Your task to perform on an android device: find which apps use the phone's location Image 0: 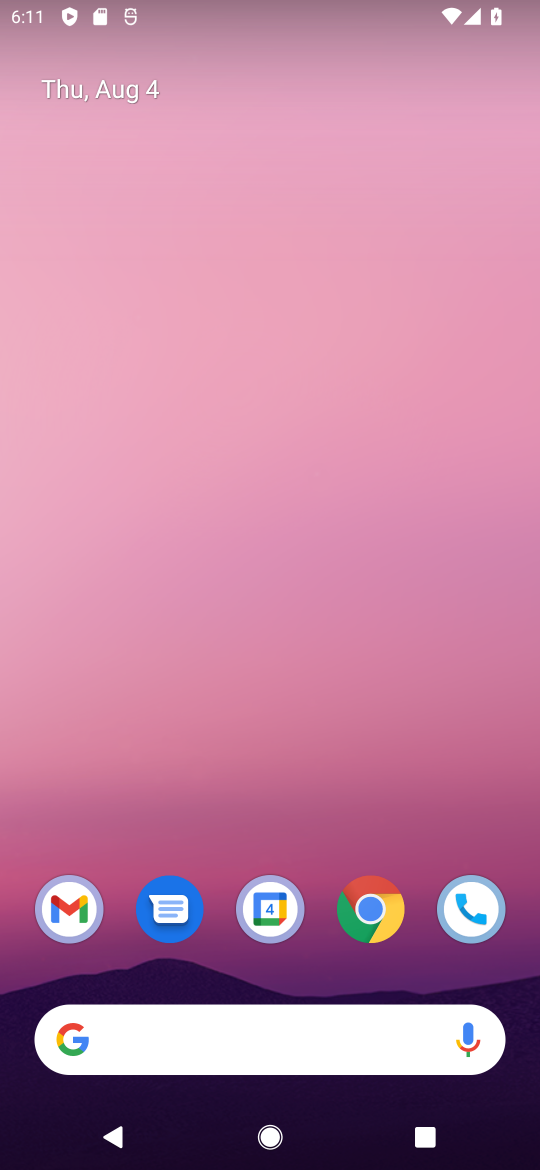
Step 0: drag from (225, 1069) to (312, 62)
Your task to perform on an android device: find which apps use the phone's location Image 1: 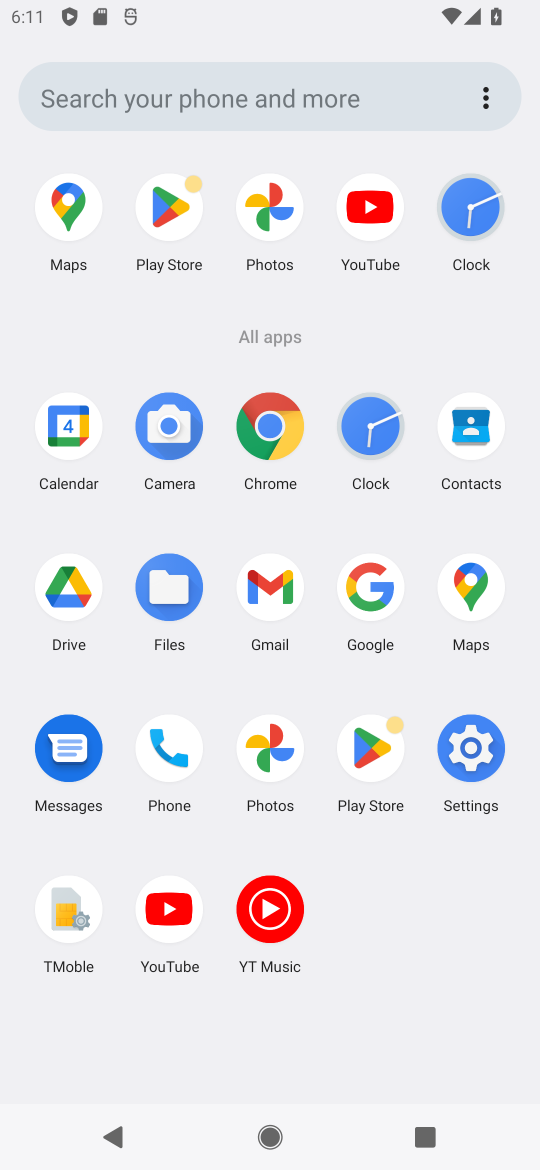
Step 1: click (499, 738)
Your task to perform on an android device: find which apps use the phone's location Image 2: 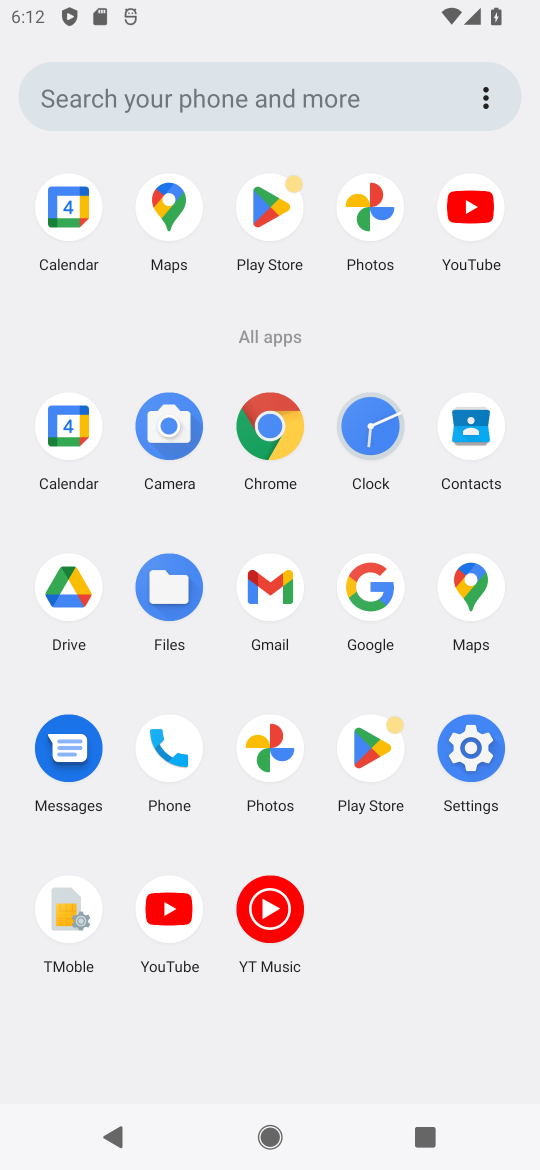
Step 2: click (475, 753)
Your task to perform on an android device: find which apps use the phone's location Image 3: 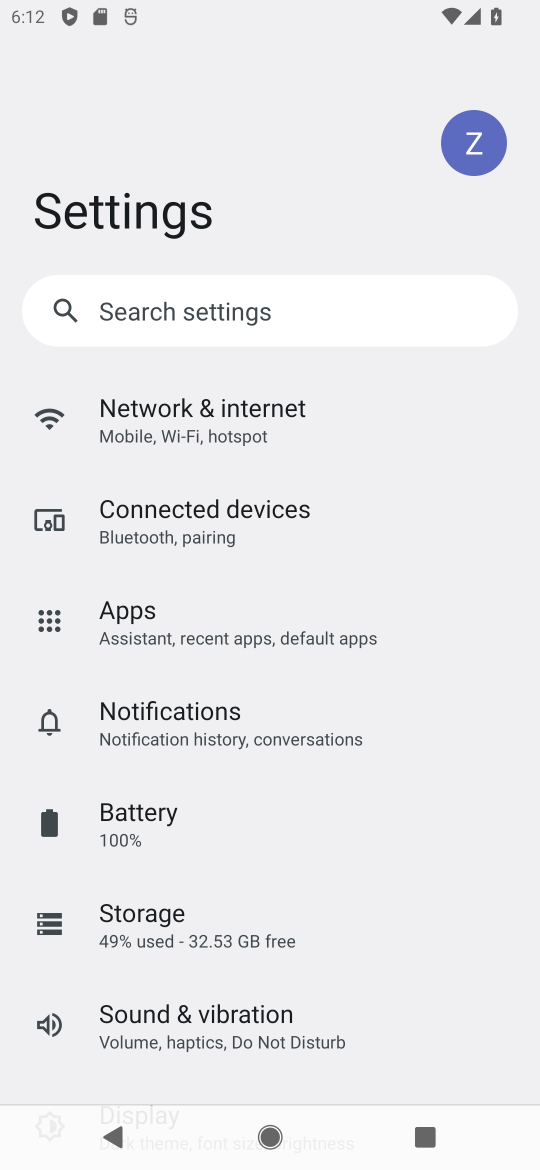
Step 3: drag from (213, 910) to (287, 364)
Your task to perform on an android device: find which apps use the phone's location Image 4: 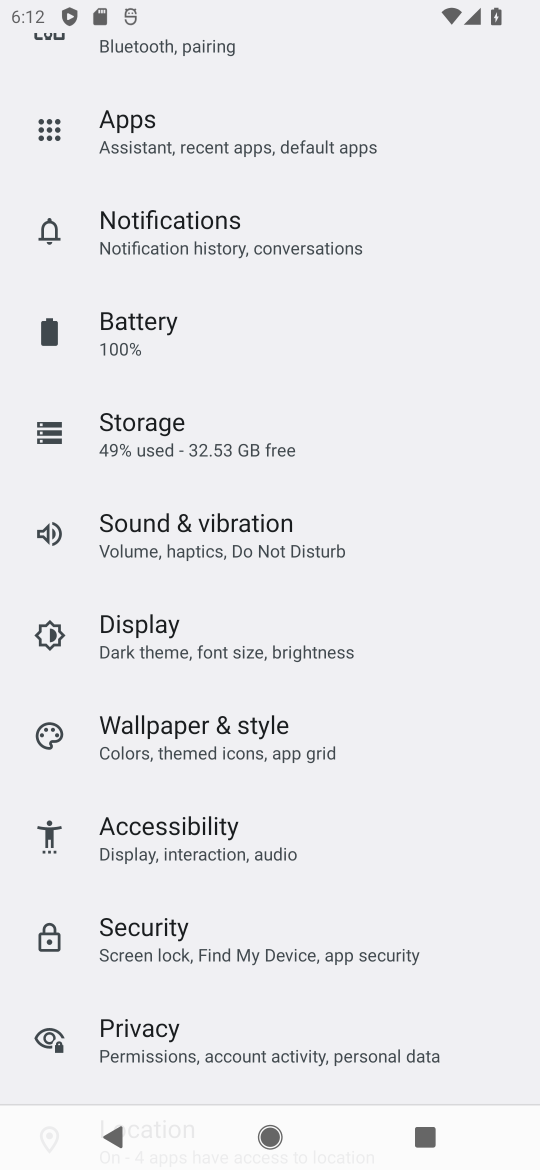
Step 4: drag from (171, 963) to (195, 403)
Your task to perform on an android device: find which apps use the phone's location Image 5: 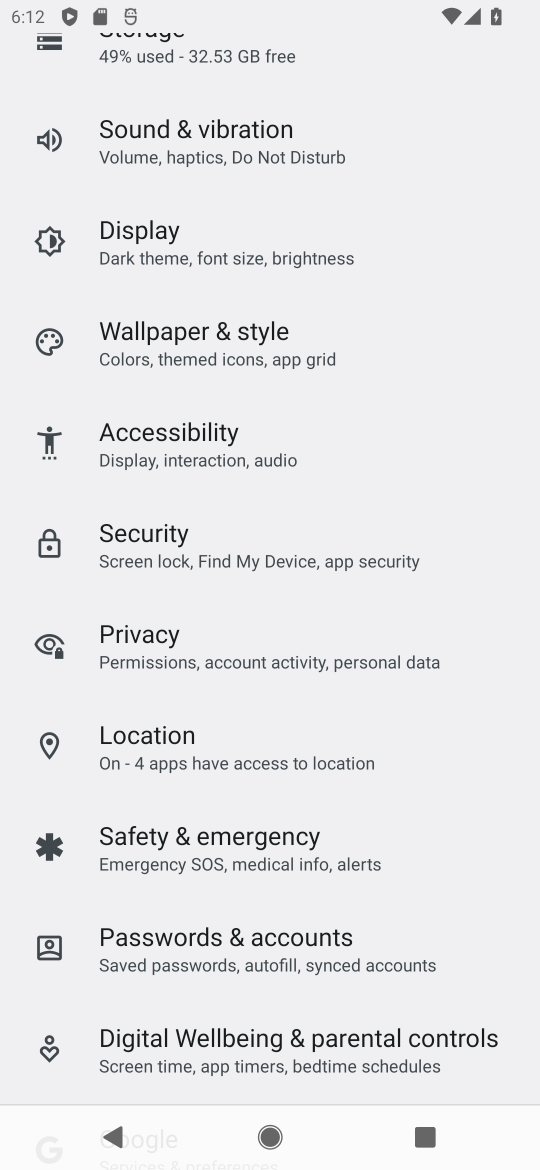
Step 5: click (166, 765)
Your task to perform on an android device: find which apps use the phone's location Image 6: 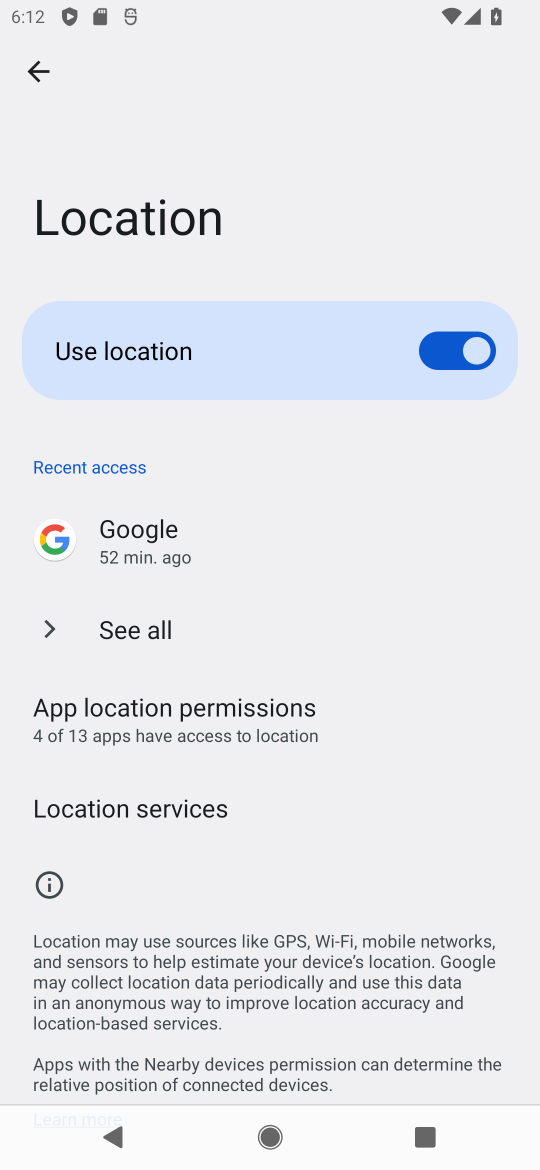
Step 6: click (190, 733)
Your task to perform on an android device: find which apps use the phone's location Image 7: 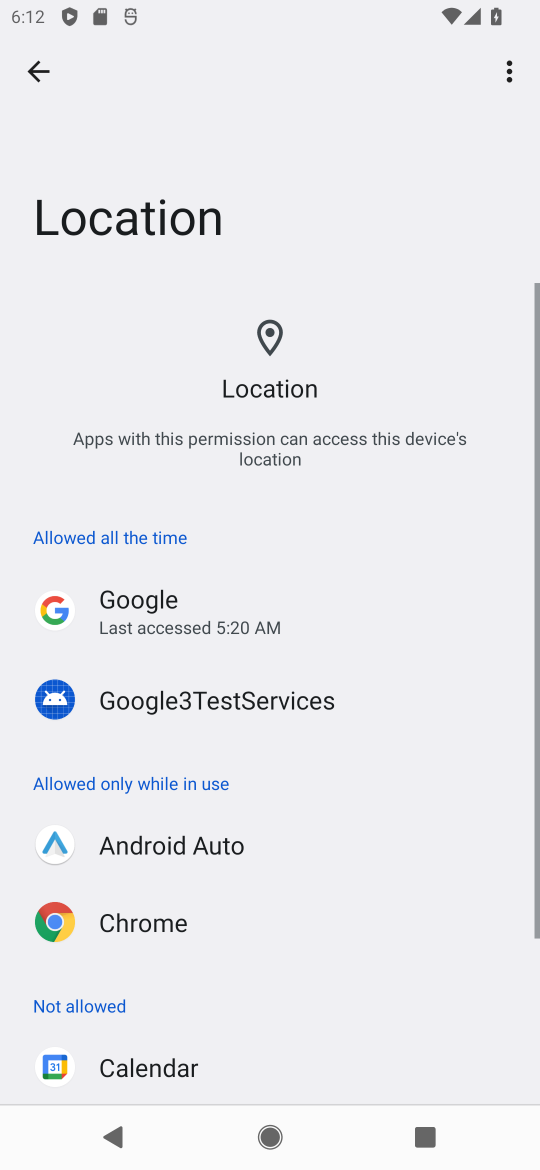
Step 7: task complete